Your task to perform on an android device: Search for apple airpods on walmart.com, select the first entry, and add it to the cart. Image 0: 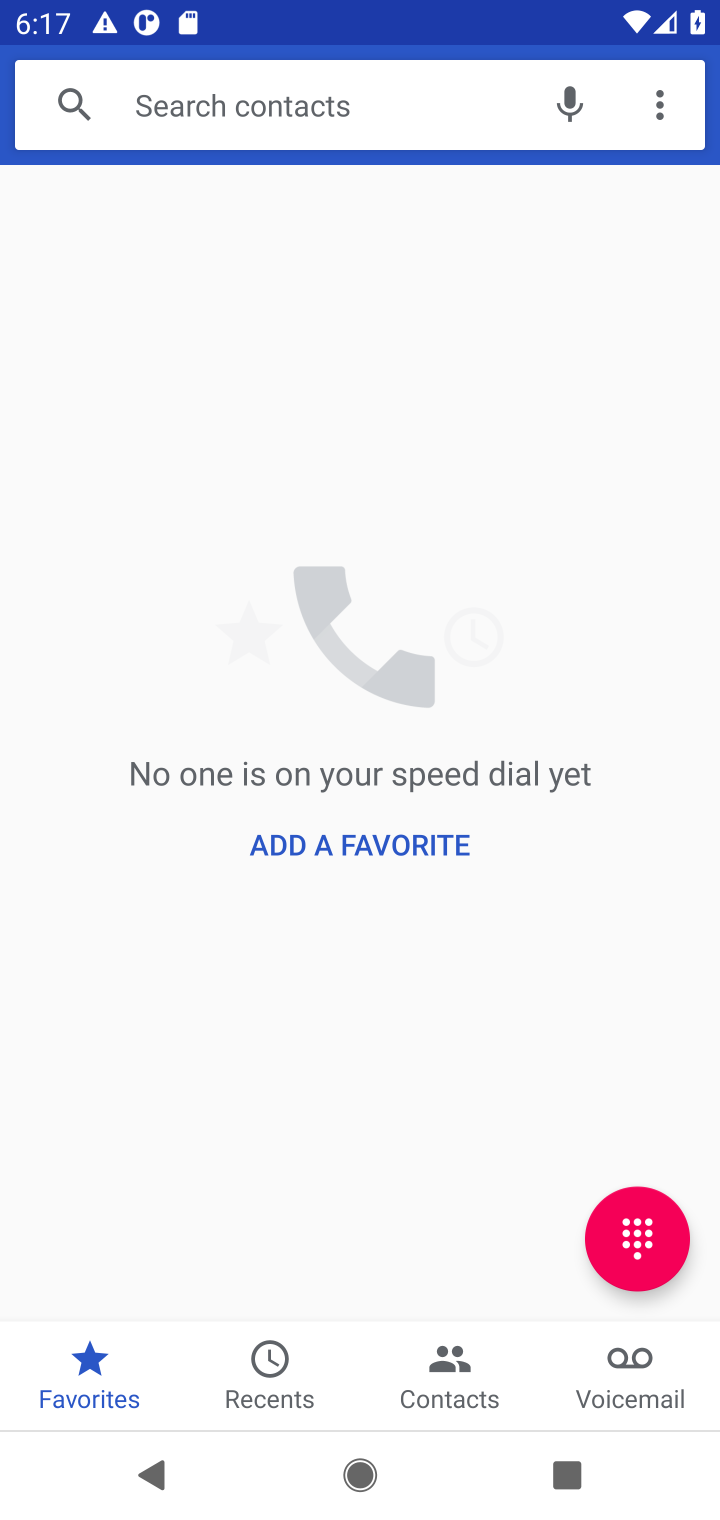
Step 0: press home button
Your task to perform on an android device: Search for apple airpods on walmart.com, select the first entry, and add it to the cart. Image 1: 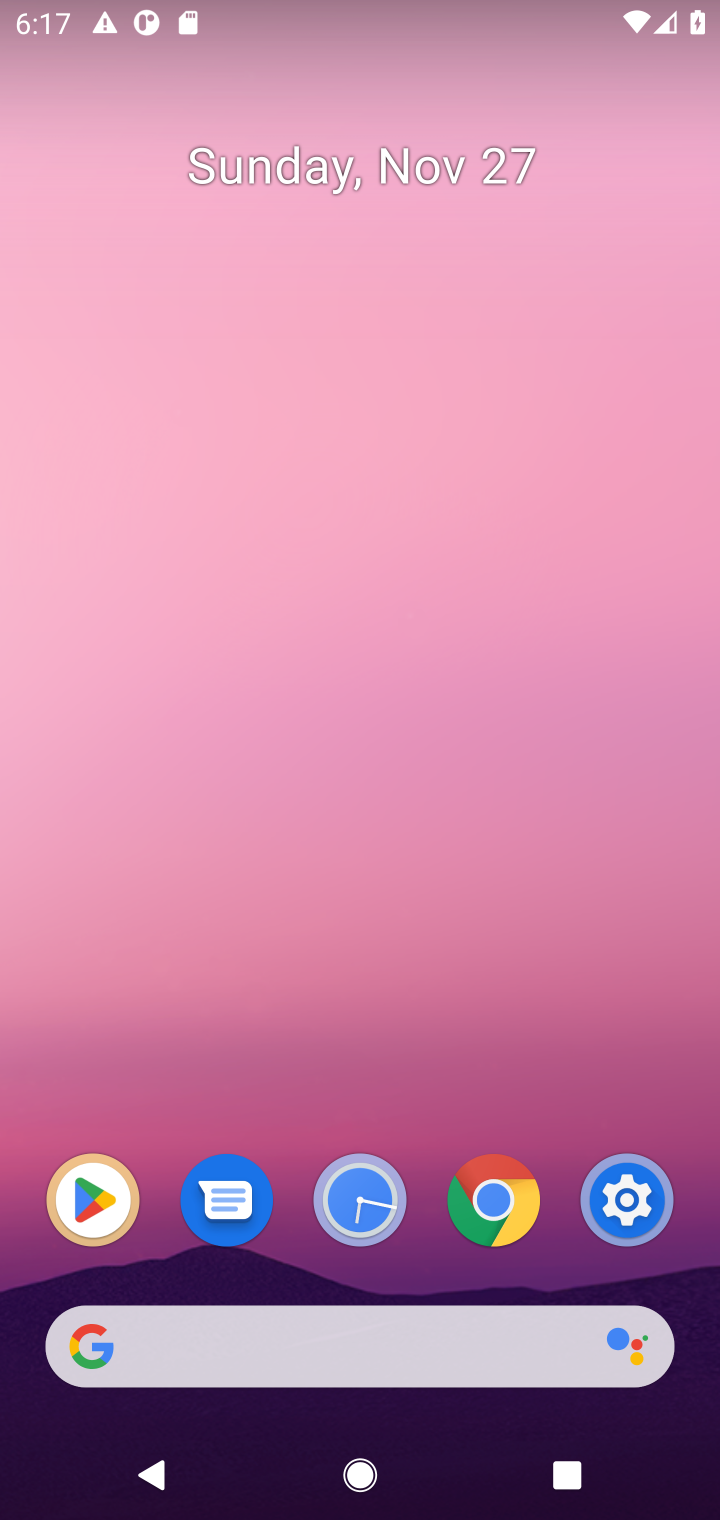
Step 1: click (491, 1204)
Your task to perform on an android device: Search for apple airpods on walmart.com, select the first entry, and add it to the cart. Image 2: 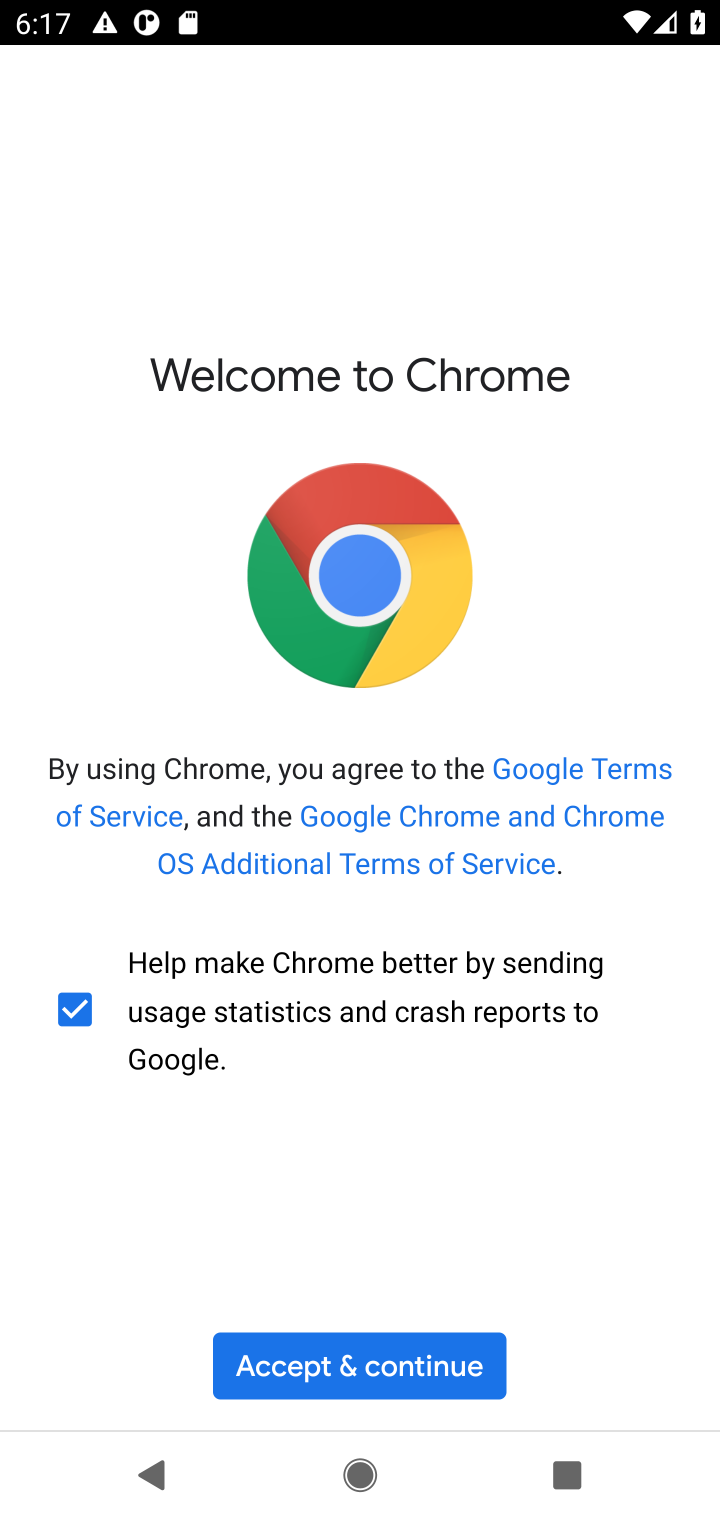
Step 2: click (338, 1383)
Your task to perform on an android device: Search for apple airpods on walmart.com, select the first entry, and add it to the cart. Image 3: 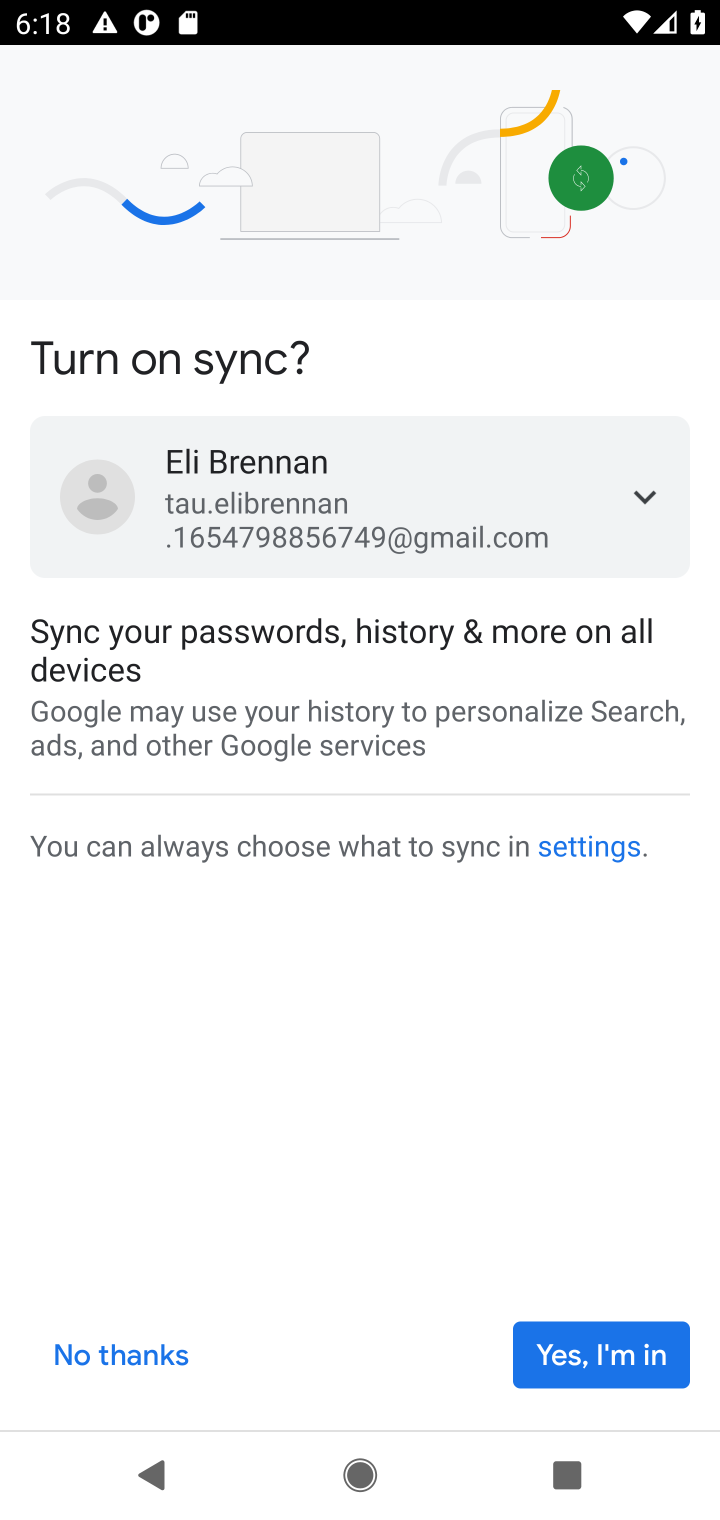
Step 3: click (82, 1368)
Your task to perform on an android device: Search for apple airpods on walmart.com, select the first entry, and add it to the cart. Image 4: 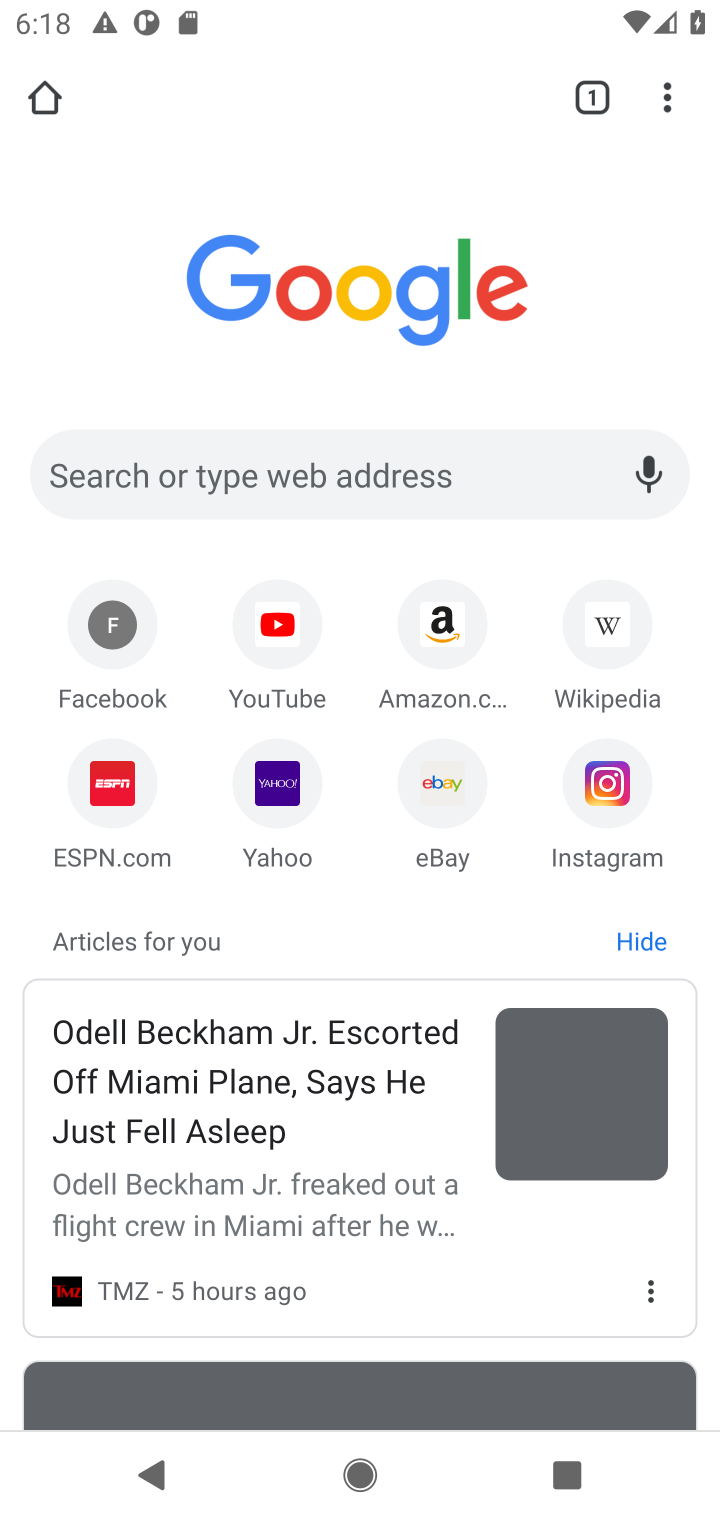
Step 4: click (135, 483)
Your task to perform on an android device: Search for apple airpods on walmart.com, select the first entry, and add it to the cart. Image 5: 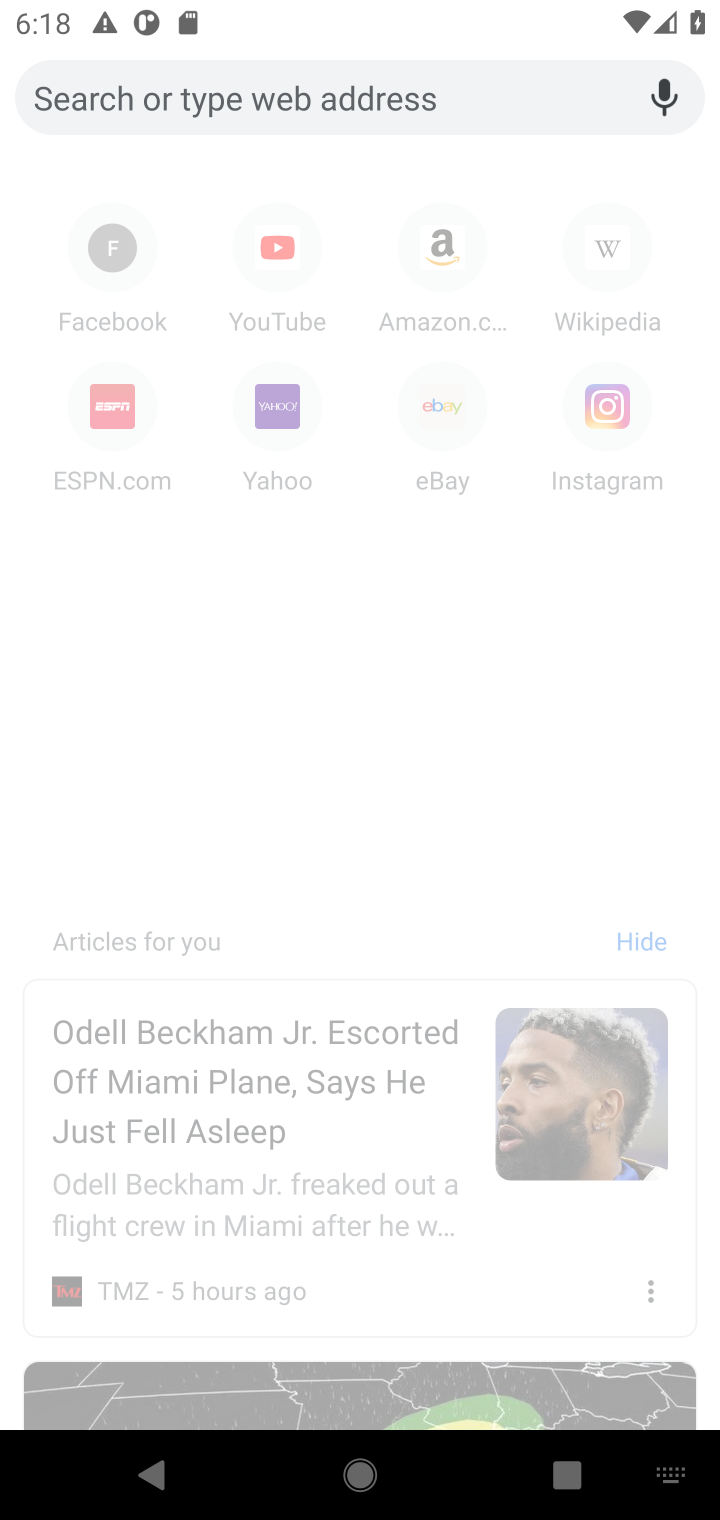
Step 5: type "walmart.com"
Your task to perform on an android device: Search for apple airpods on walmart.com, select the first entry, and add it to the cart. Image 6: 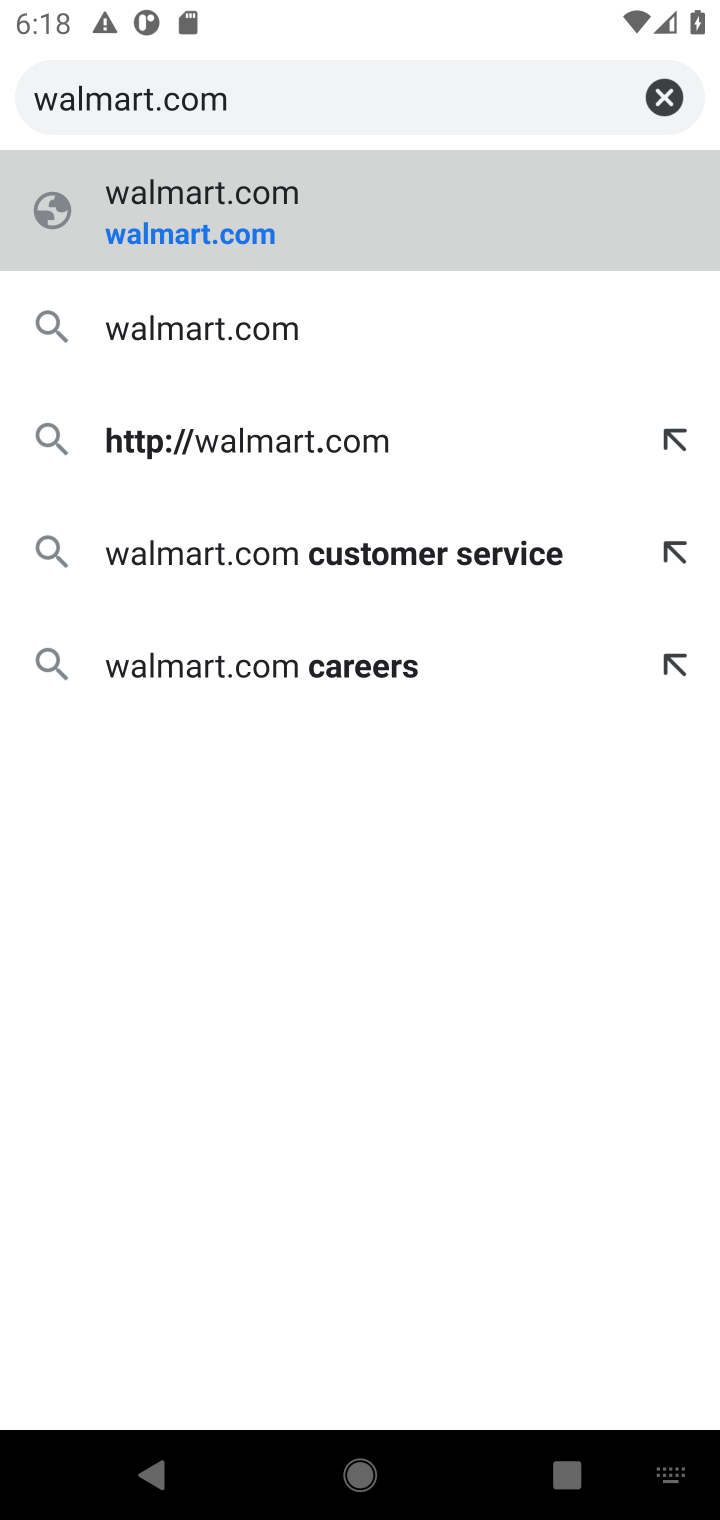
Step 6: click (148, 245)
Your task to perform on an android device: Search for apple airpods on walmart.com, select the first entry, and add it to the cart. Image 7: 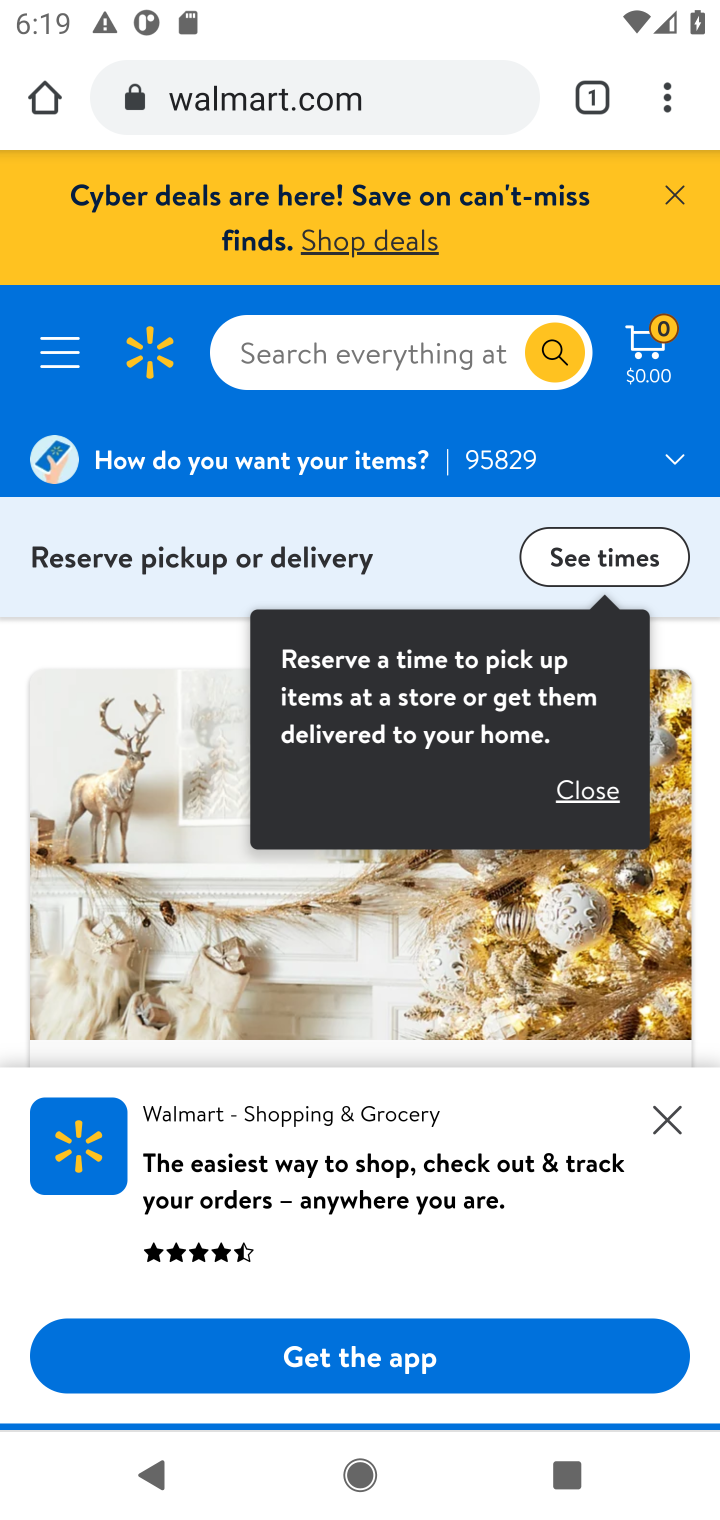
Step 7: click (537, 341)
Your task to perform on an android device: Search for apple airpods on walmart.com, select the first entry, and add it to the cart. Image 8: 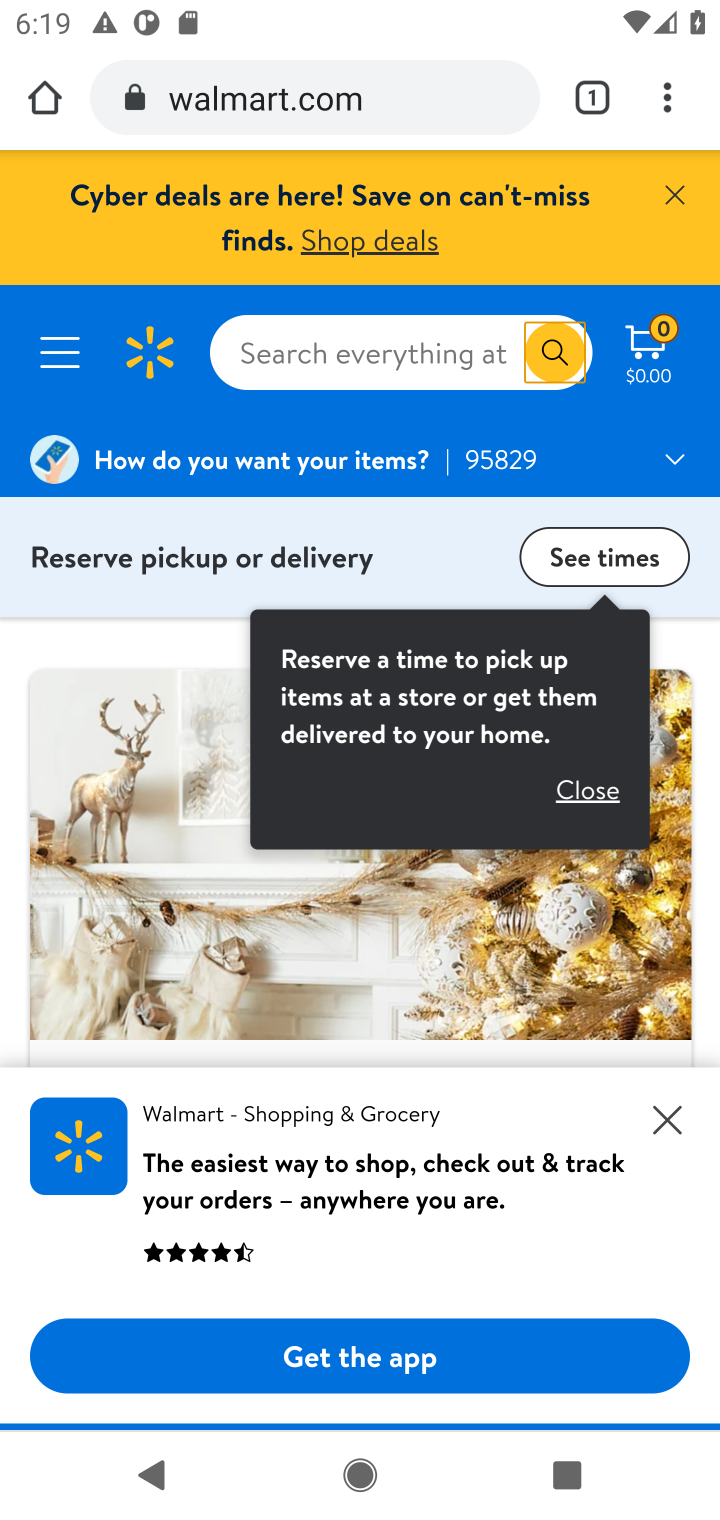
Step 8: click (308, 369)
Your task to perform on an android device: Search for apple airpods on walmart.com, select the first entry, and add it to the cart. Image 9: 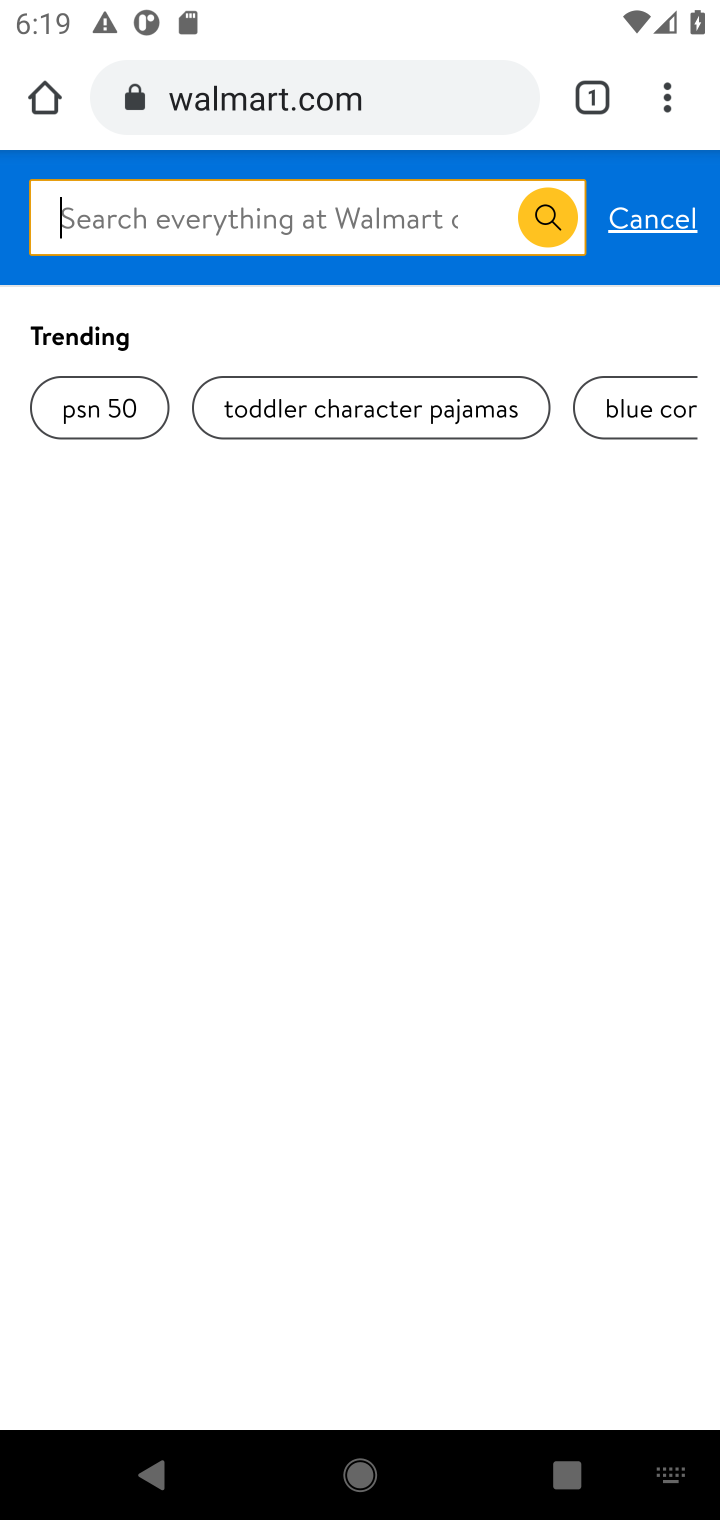
Step 9: type "apple airpods "
Your task to perform on an android device: Search for apple airpods on walmart.com, select the first entry, and add it to the cart. Image 10: 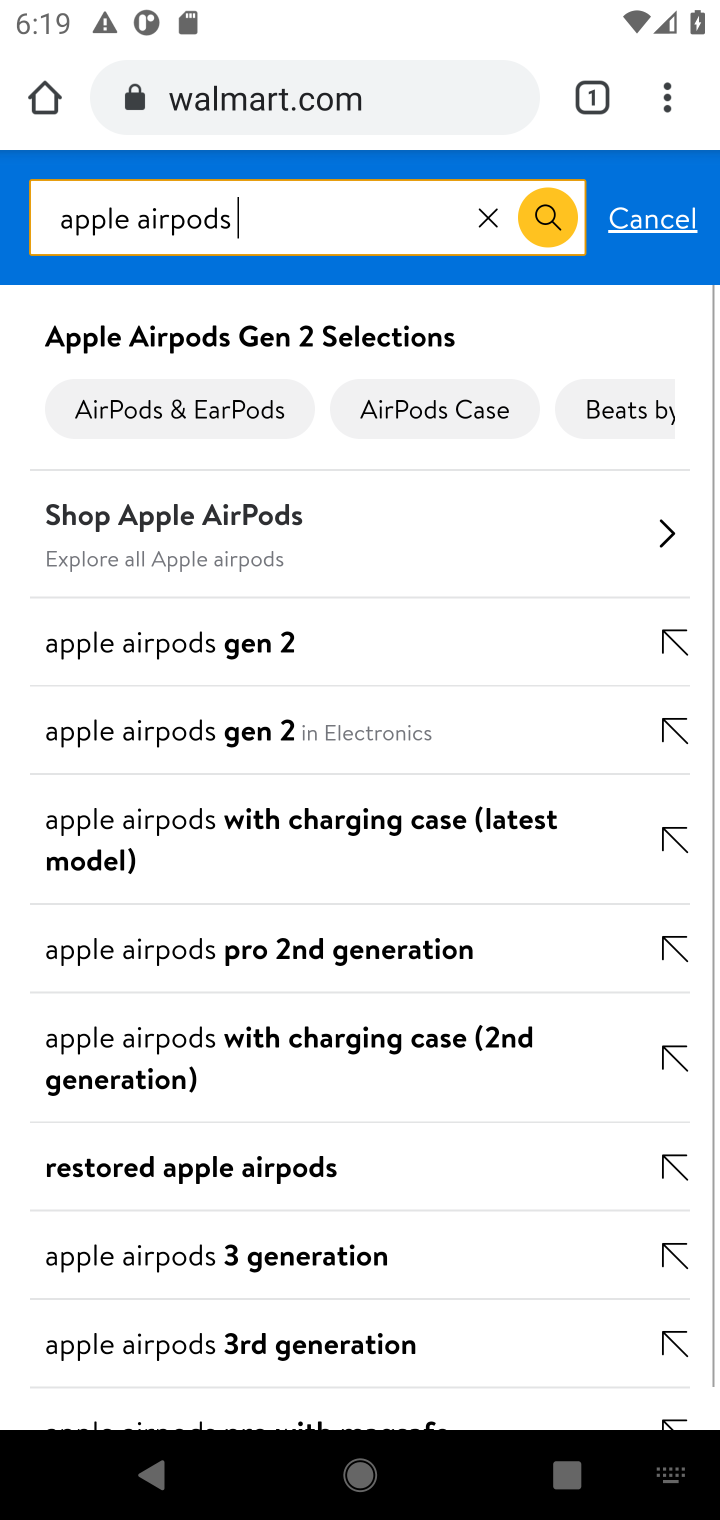
Step 10: click (546, 218)
Your task to perform on an android device: Search for apple airpods on walmart.com, select the first entry, and add it to the cart. Image 11: 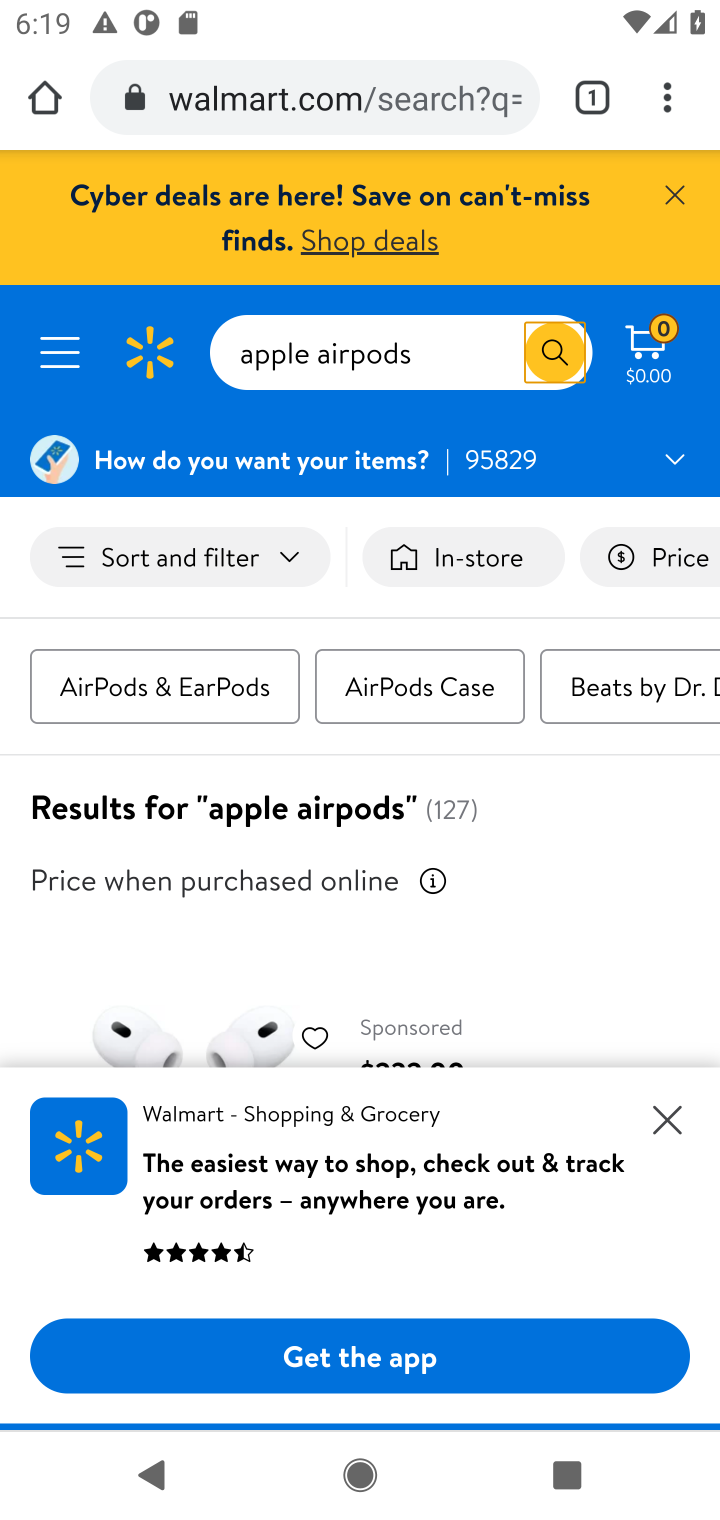
Step 11: drag from (331, 872) to (310, 449)
Your task to perform on an android device: Search for apple airpods on walmart.com, select the first entry, and add it to the cart. Image 12: 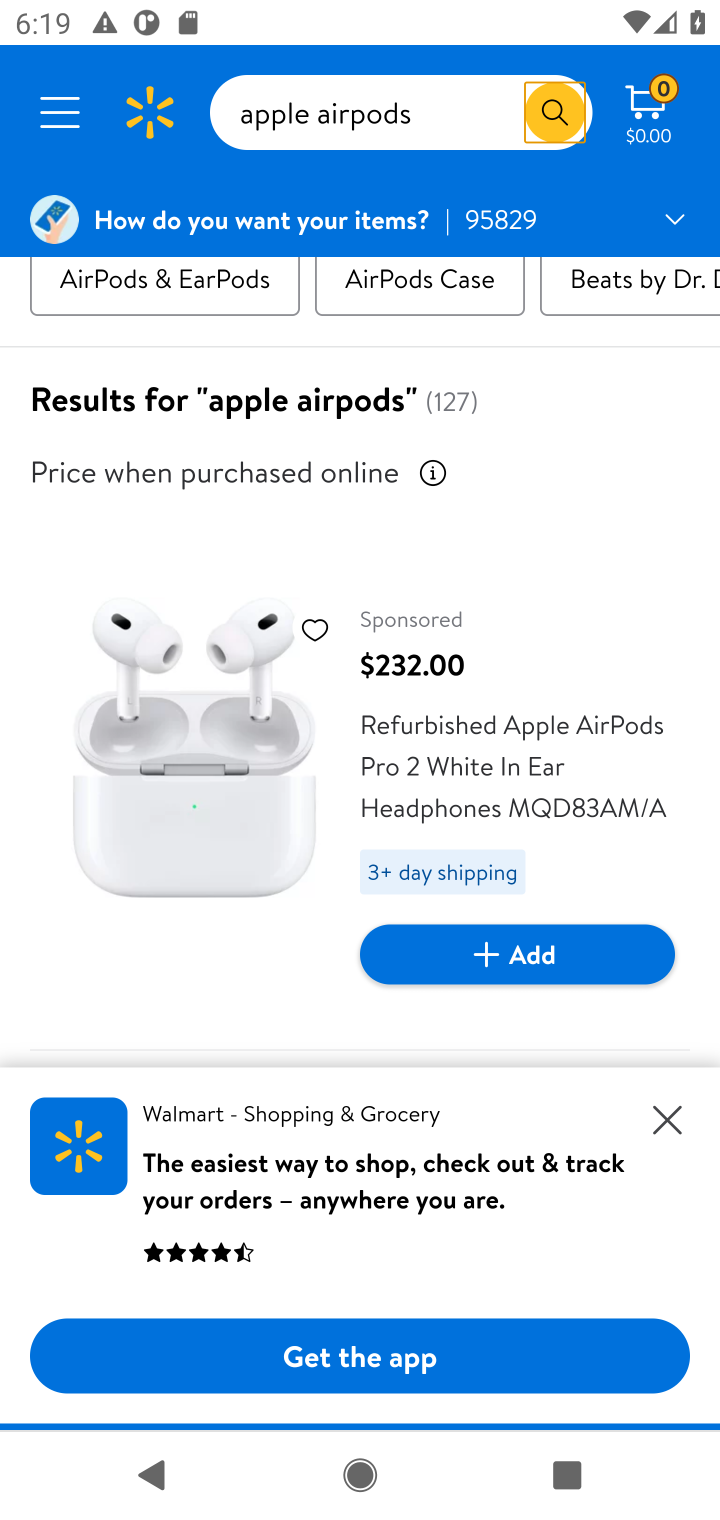
Step 12: click (472, 966)
Your task to perform on an android device: Search for apple airpods on walmart.com, select the first entry, and add it to the cart. Image 13: 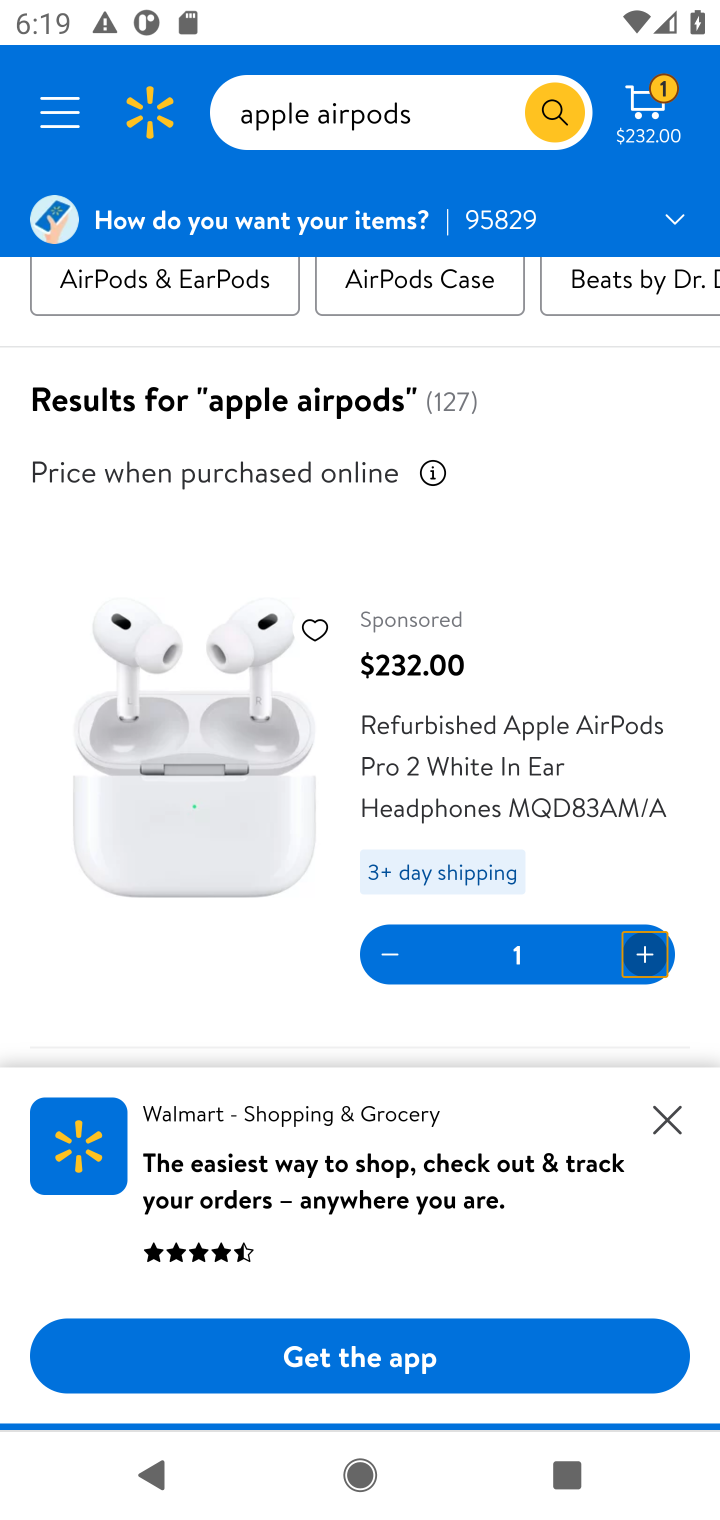
Step 13: task complete